Your task to perform on an android device: Open Chrome and go to settings Image 0: 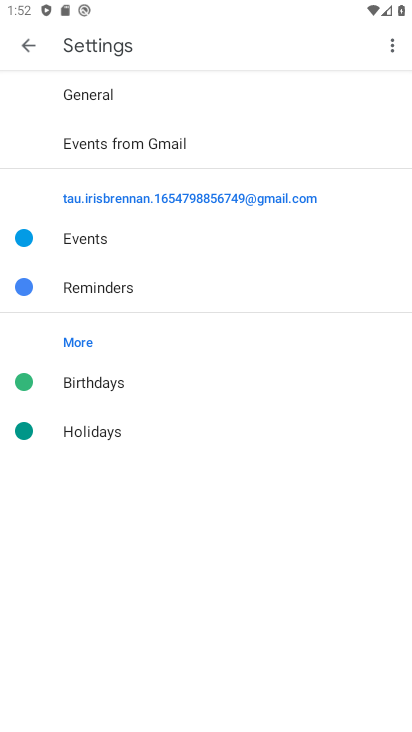
Step 0: press home button
Your task to perform on an android device: Open Chrome and go to settings Image 1: 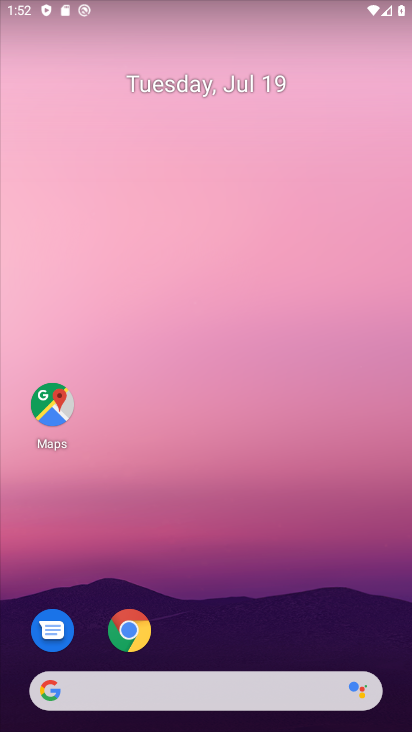
Step 1: click (136, 627)
Your task to perform on an android device: Open Chrome and go to settings Image 2: 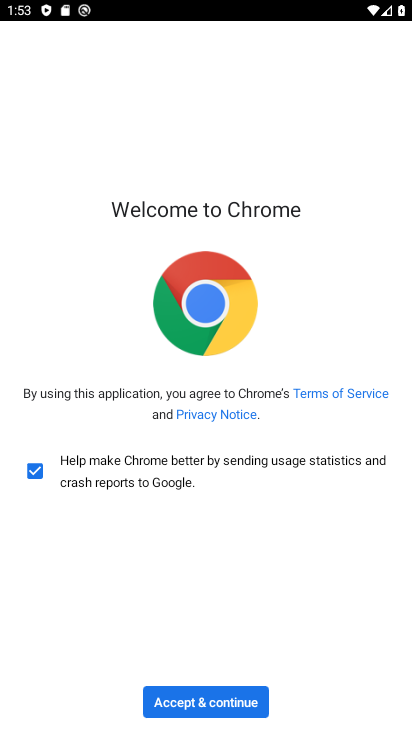
Step 2: click (210, 706)
Your task to perform on an android device: Open Chrome and go to settings Image 3: 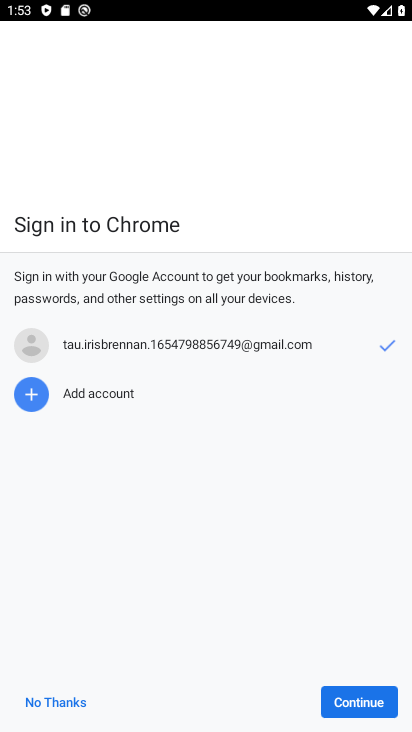
Step 3: click (357, 697)
Your task to perform on an android device: Open Chrome and go to settings Image 4: 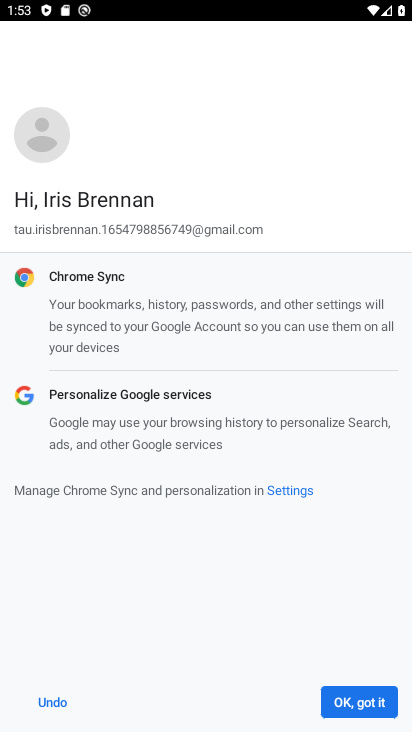
Step 4: click (360, 702)
Your task to perform on an android device: Open Chrome and go to settings Image 5: 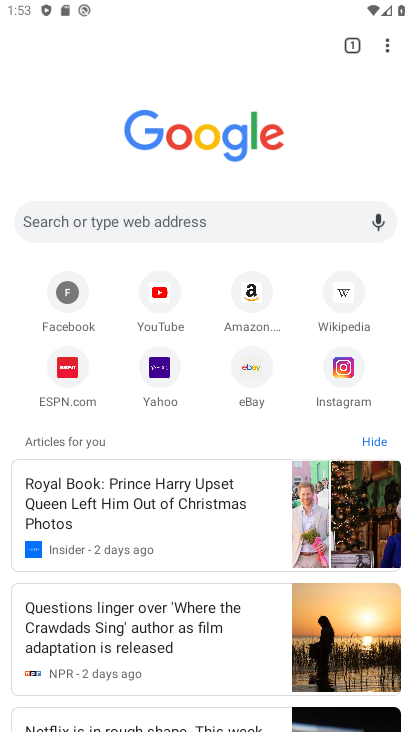
Step 5: click (388, 47)
Your task to perform on an android device: Open Chrome and go to settings Image 6: 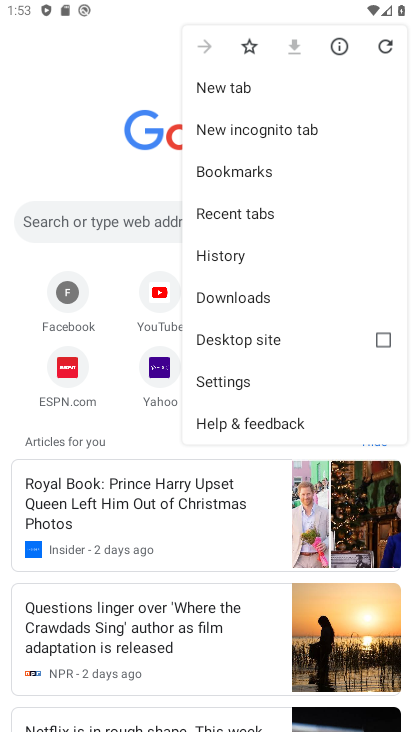
Step 6: click (235, 378)
Your task to perform on an android device: Open Chrome and go to settings Image 7: 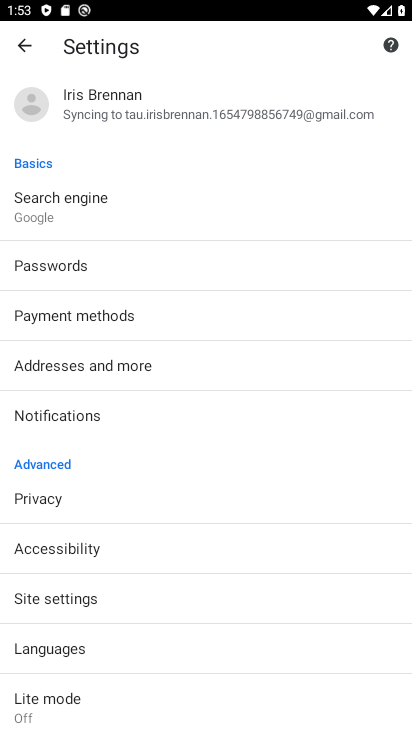
Step 7: task complete